Your task to perform on an android device: Open display settings Image 0: 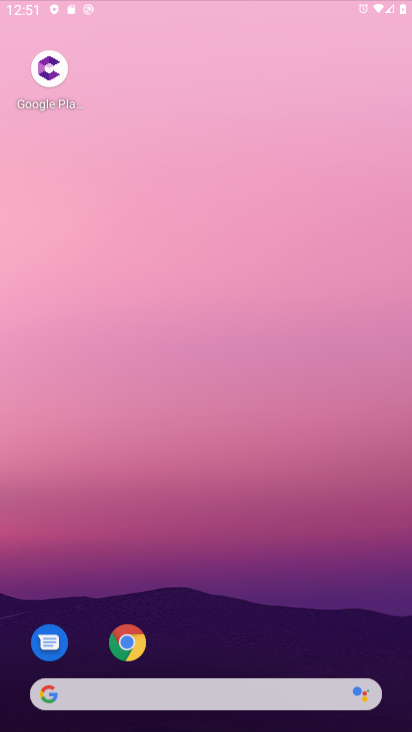
Step 0: press home button
Your task to perform on an android device: Open display settings Image 1: 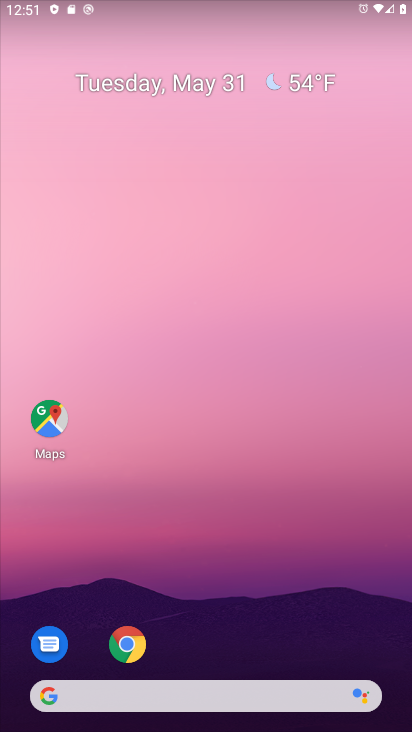
Step 1: drag from (238, 659) to (200, 162)
Your task to perform on an android device: Open display settings Image 2: 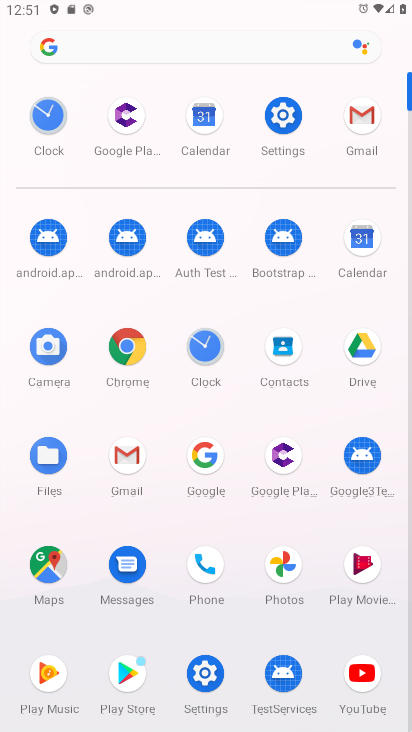
Step 2: click (287, 119)
Your task to perform on an android device: Open display settings Image 3: 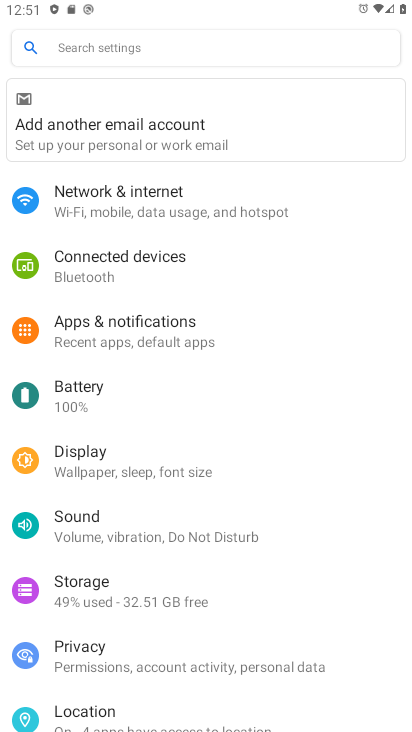
Step 3: click (74, 453)
Your task to perform on an android device: Open display settings Image 4: 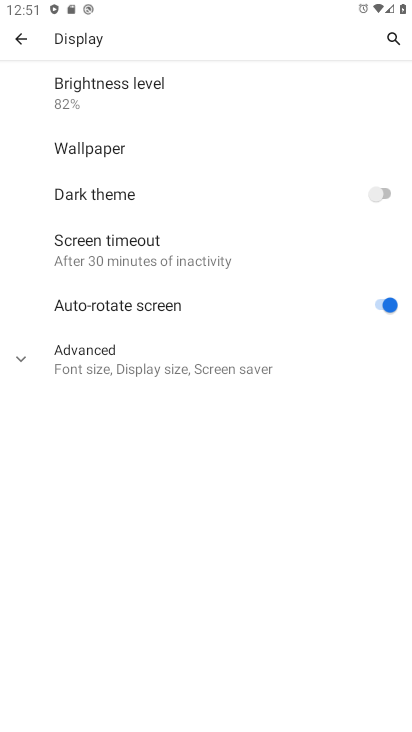
Step 4: task complete